Your task to perform on an android device: Go to Google Image 0: 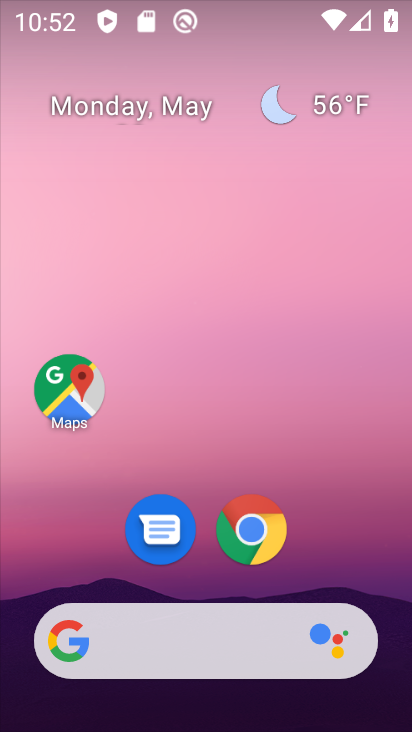
Step 0: drag from (322, 549) to (285, 68)
Your task to perform on an android device: Go to Google Image 1: 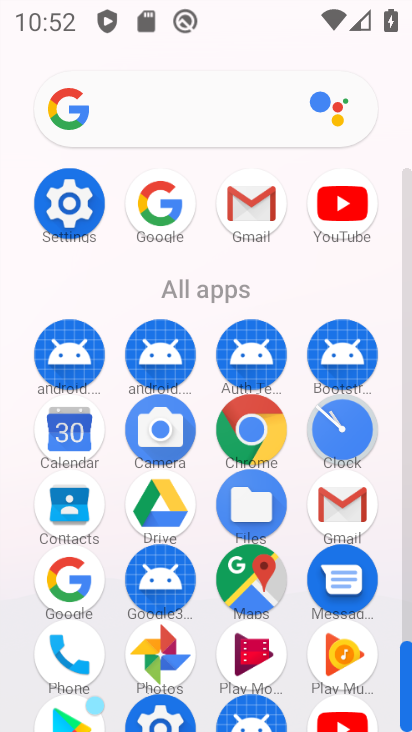
Step 1: click (156, 203)
Your task to perform on an android device: Go to Google Image 2: 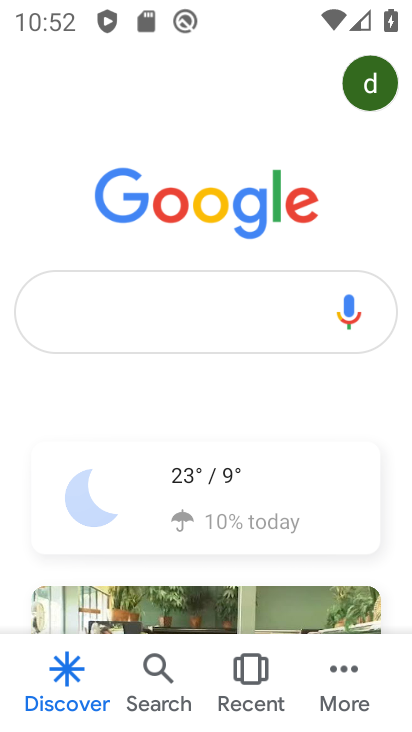
Step 2: task complete